Your task to perform on an android device: Is it going to rain this weekend? Image 0: 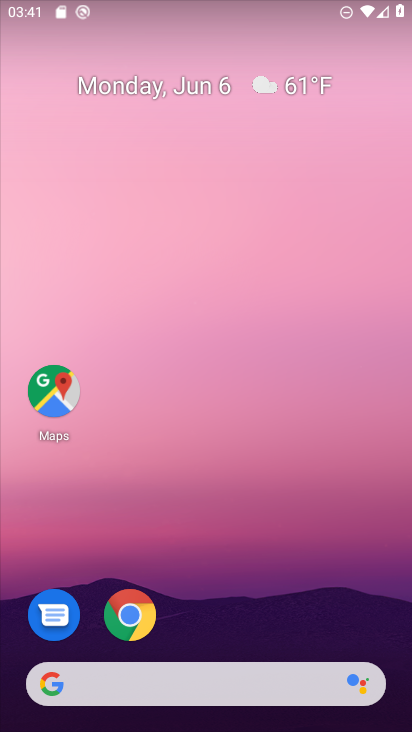
Step 0: click (293, 83)
Your task to perform on an android device: Is it going to rain this weekend? Image 1: 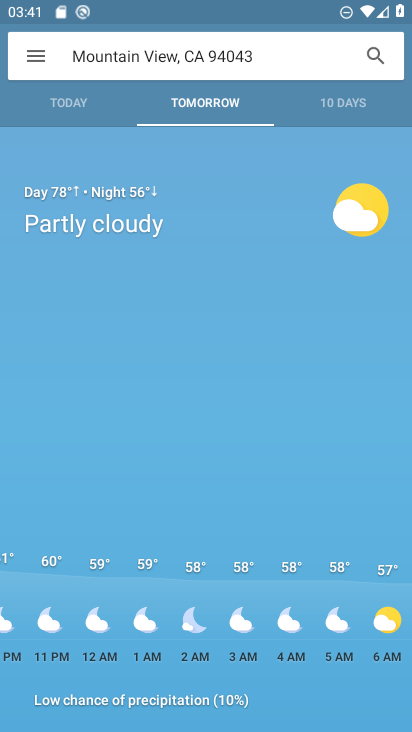
Step 1: click (342, 98)
Your task to perform on an android device: Is it going to rain this weekend? Image 2: 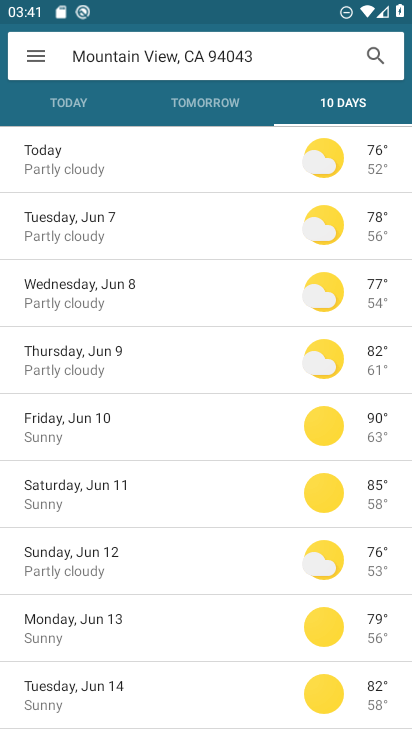
Step 2: task complete